Your task to perform on an android device: turn on sleep mode Image 0: 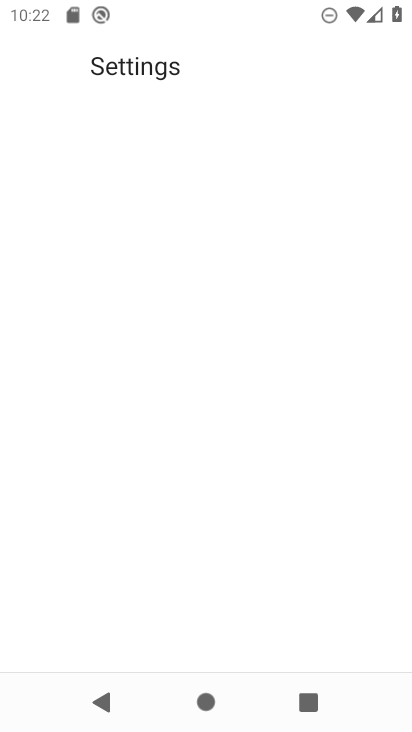
Step 0: drag from (385, 561) to (284, 136)
Your task to perform on an android device: turn on sleep mode Image 1: 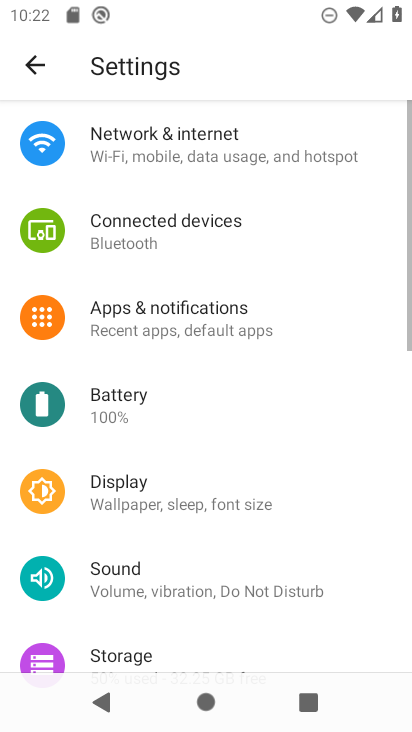
Step 1: press home button
Your task to perform on an android device: turn on sleep mode Image 2: 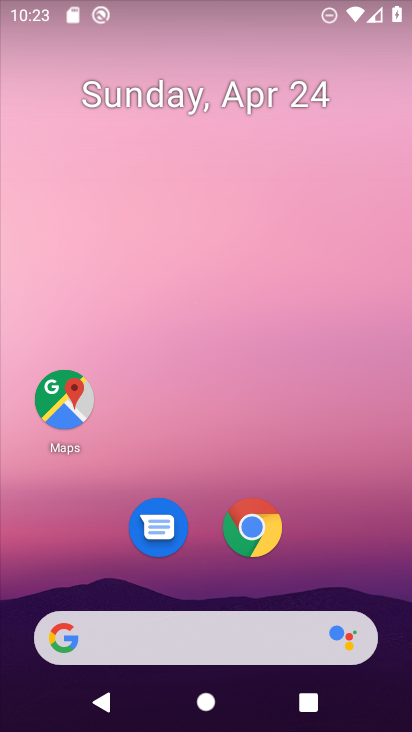
Step 2: drag from (385, 622) to (279, 23)
Your task to perform on an android device: turn on sleep mode Image 3: 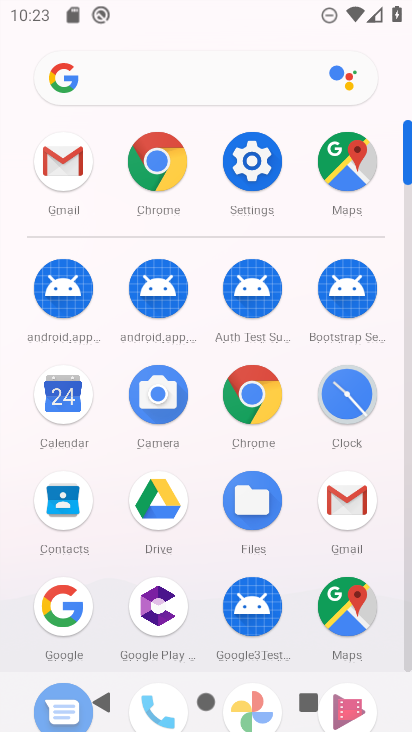
Step 3: click (251, 188)
Your task to perform on an android device: turn on sleep mode Image 4: 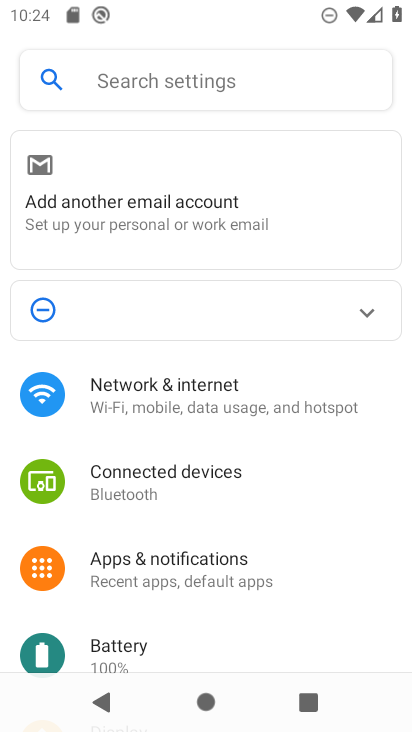
Step 4: task complete